Your task to perform on an android device: set the stopwatch Image 0: 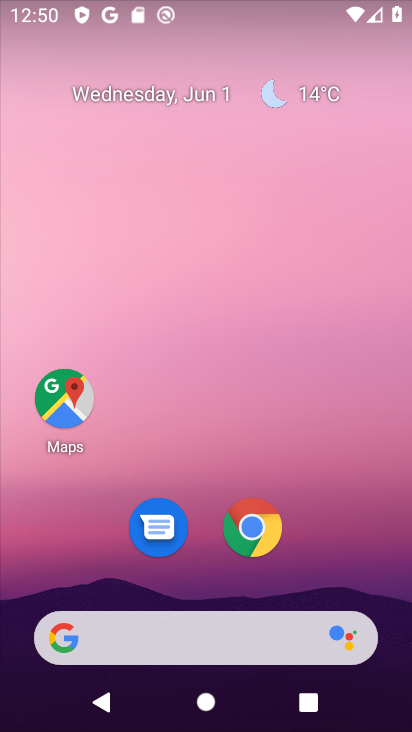
Step 0: drag from (241, 624) to (243, 188)
Your task to perform on an android device: set the stopwatch Image 1: 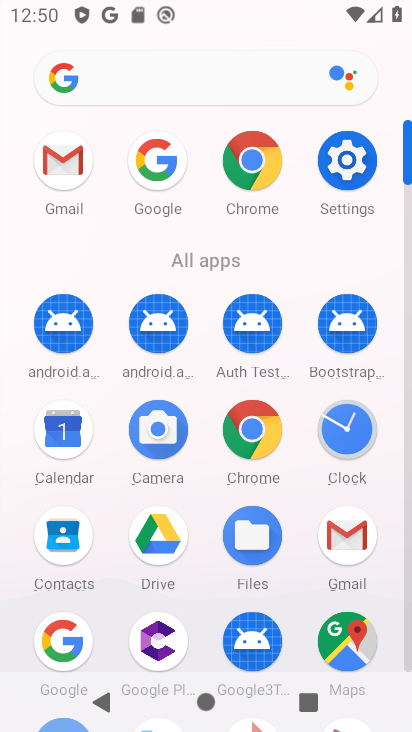
Step 1: click (350, 470)
Your task to perform on an android device: set the stopwatch Image 2: 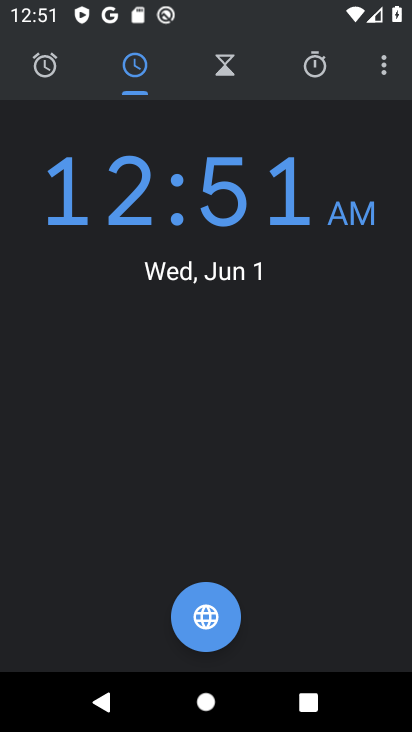
Step 2: click (311, 78)
Your task to perform on an android device: set the stopwatch Image 3: 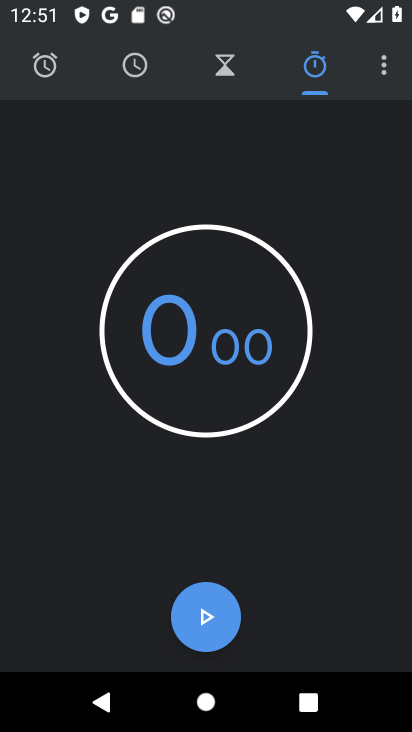
Step 3: click (207, 633)
Your task to perform on an android device: set the stopwatch Image 4: 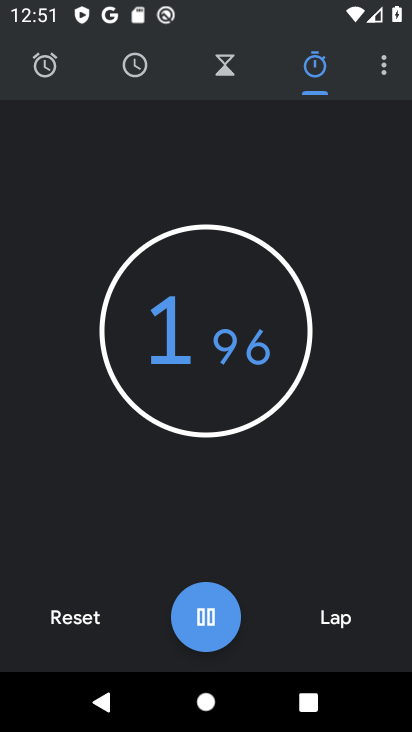
Step 4: task complete